Your task to perform on an android device: clear all cookies in the chrome app Image 0: 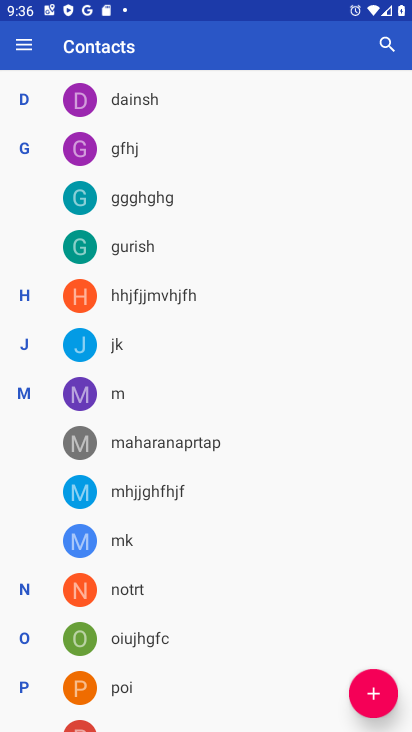
Step 0: press home button
Your task to perform on an android device: clear all cookies in the chrome app Image 1: 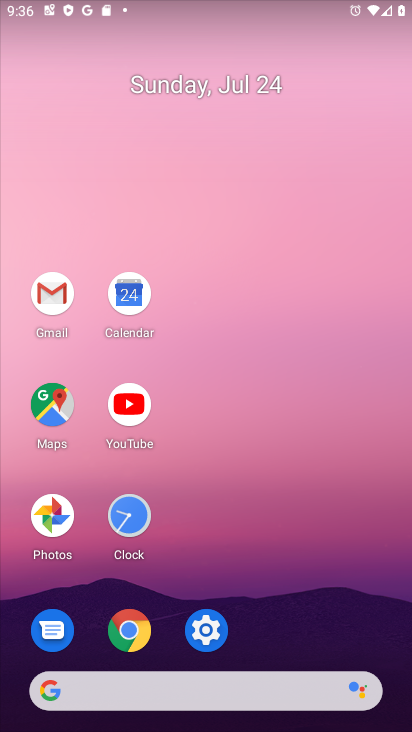
Step 1: click (130, 632)
Your task to perform on an android device: clear all cookies in the chrome app Image 2: 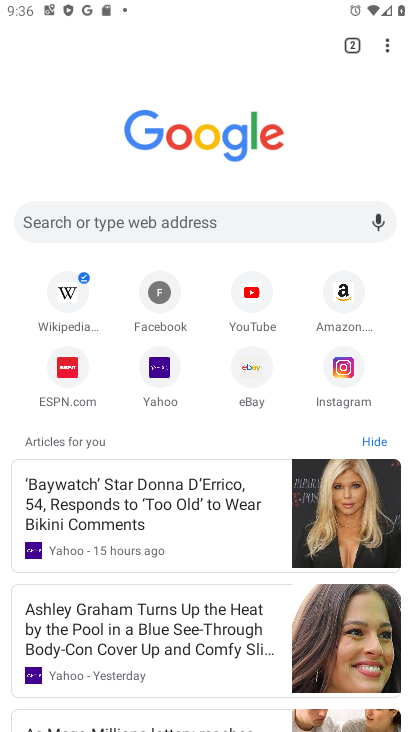
Step 2: click (381, 48)
Your task to perform on an android device: clear all cookies in the chrome app Image 3: 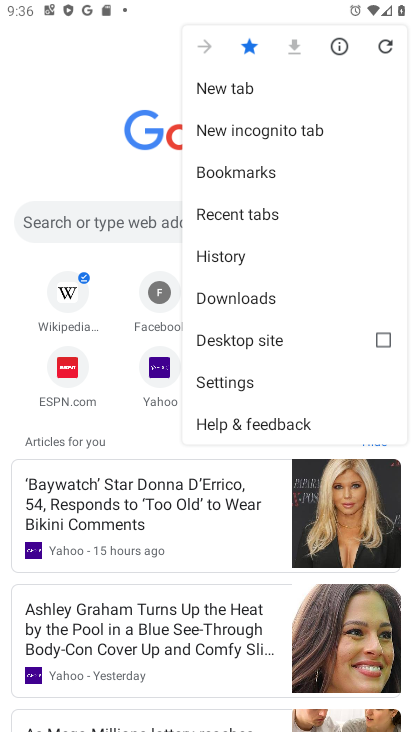
Step 3: click (226, 251)
Your task to perform on an android device: clear all cookies in the chrome app Image 4: 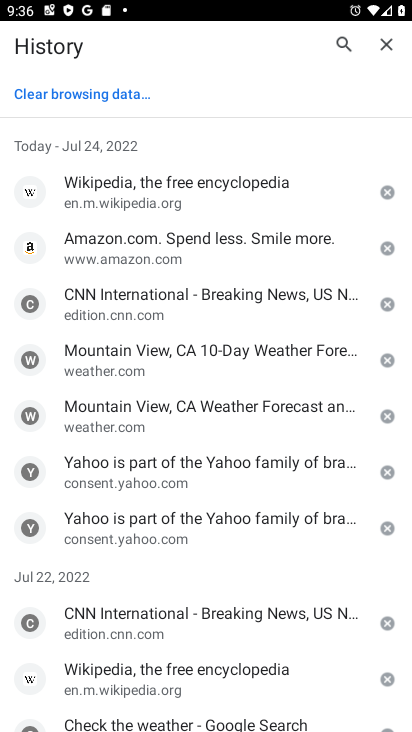
Step 4: click (86, 93)
Your task to perform on an android device: clear all cookies in the chrome app Image 5: 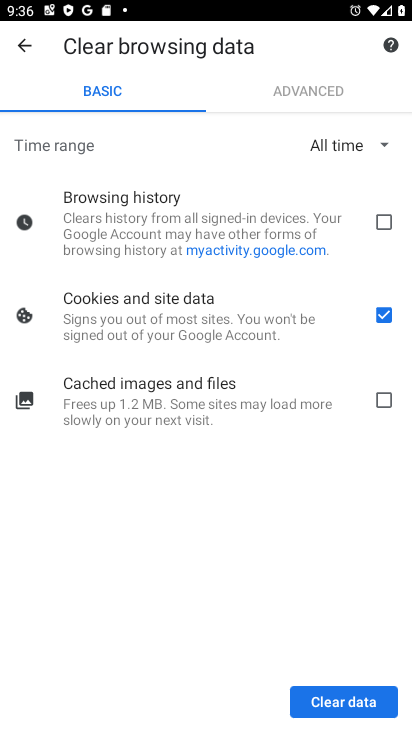
Step 5: click (346, 699)
Your task to perform on an android device: clear all cookies in the chrome app Image 6: 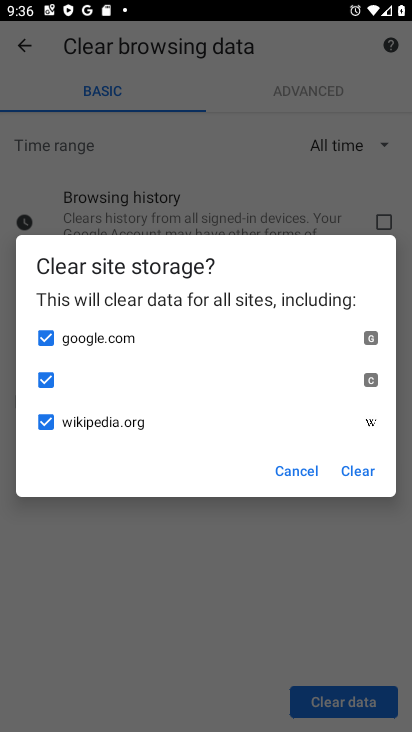
Step 6: click (350, 467)
Your task to perform on an android device: clear all cookies in the chrome app Image 7: 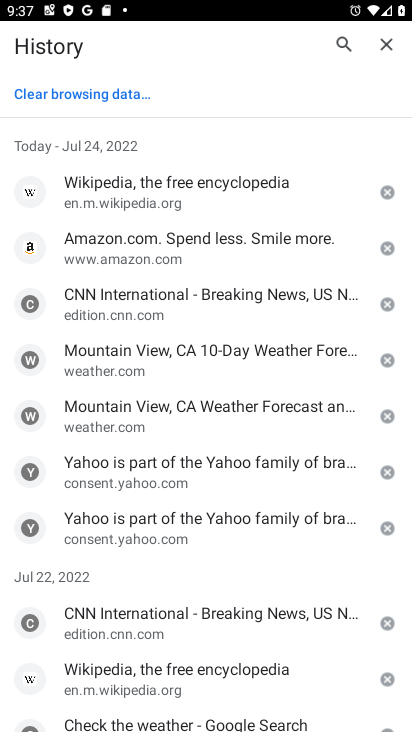
Step 7: task complete